Your task to perform on an android device: change the clock display to analog Image 0: 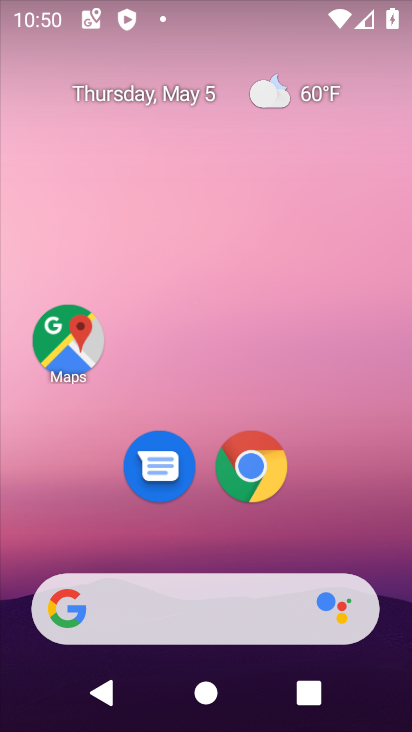
Step 0: drag from (201, 580) to (274, 91)
Your task to perform on an android device: change the clock display to analog Image 1: 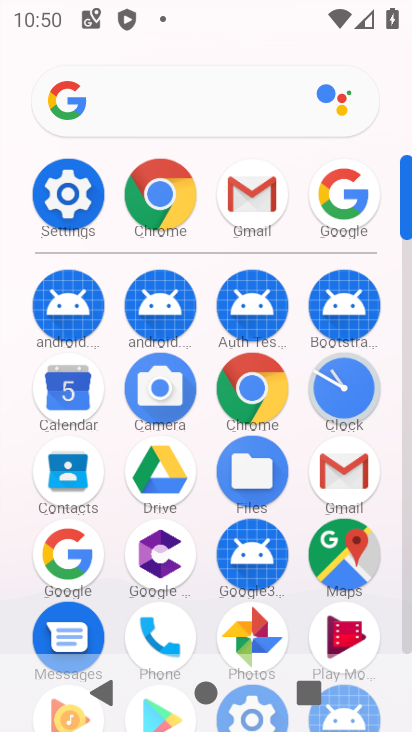
Step 1: click (340, 396)
Your task to perform on an android device: change the clock display to analog Image 2: 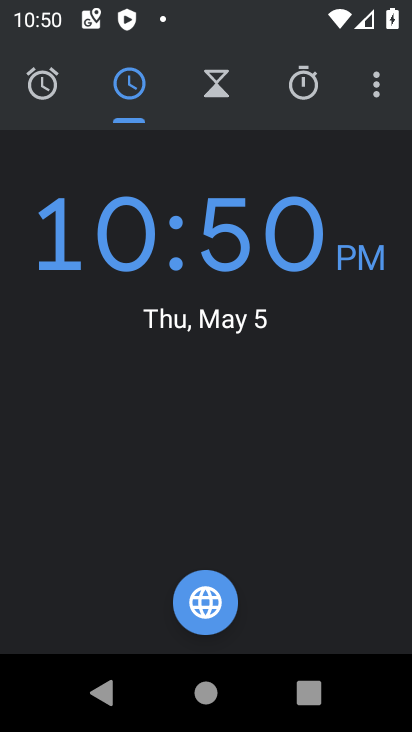
Step 2: click (377, 79)
Your task to perform on an android device: change the clock display to analog Image 3: 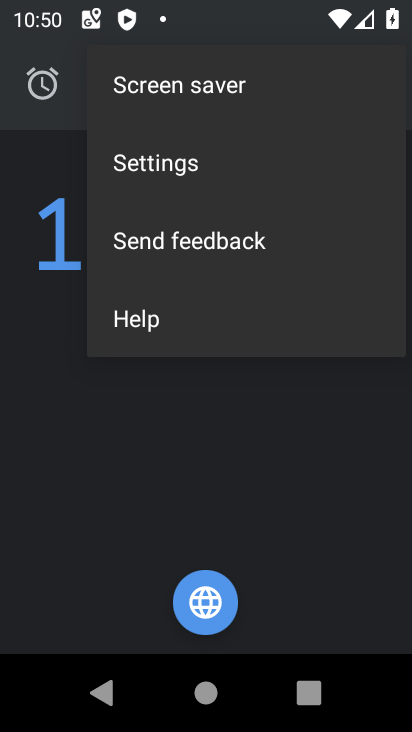
Step 3: click (155, 156)
Your task to perform on an android device: change the clock display to analog Image 4: 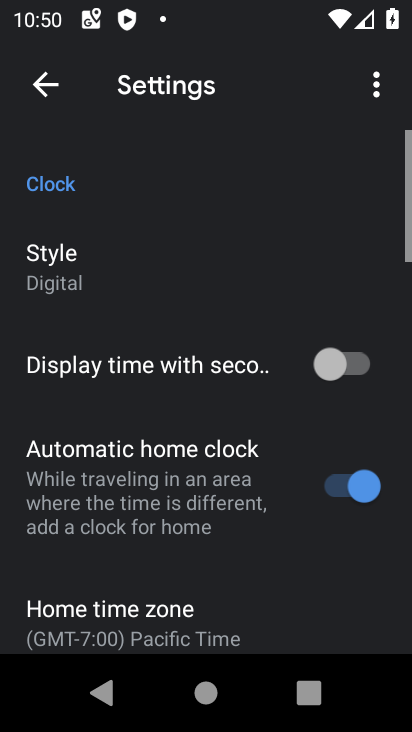
Step 4: drag from (107, 273) to (66, 273)
Your task to perform on an android device: change the clock display to analog Image 5: 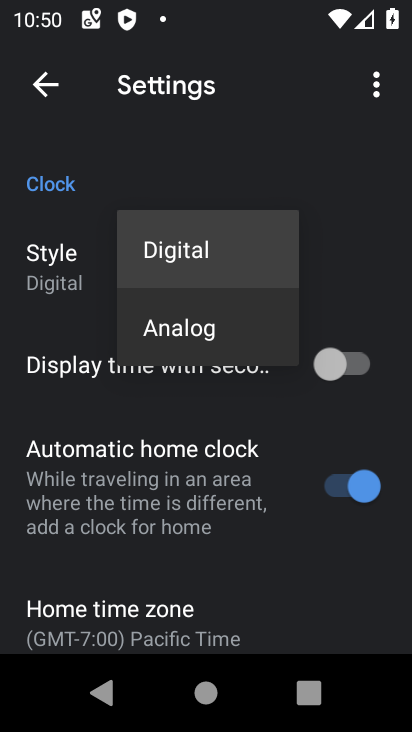
Step 5: click (213, 335)
Your task to perform on an android device: change the clock display to analog Image 6: 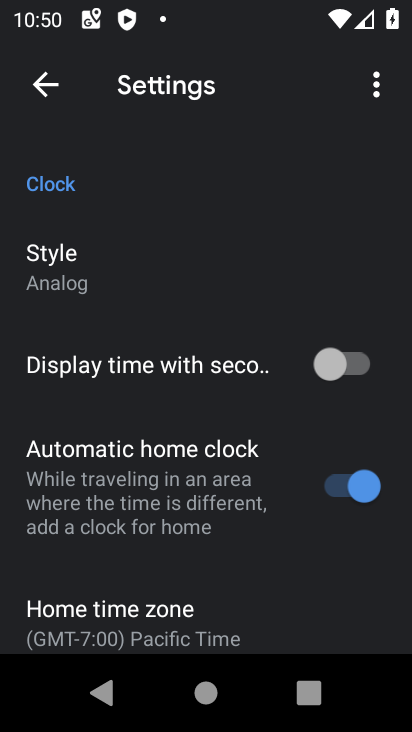
Step 6: task complete